Your task to perform on an android device: turn on improve location accuracy Image 0: 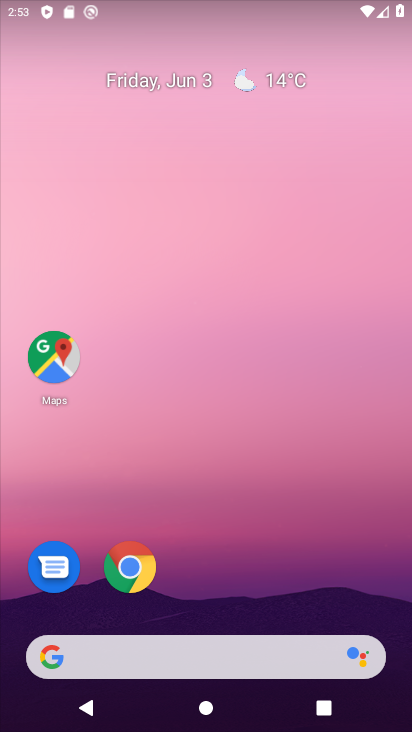
Step 0: click (207, 24)
Your task to perform on an android device: turn on improve location accuracy Image 1: 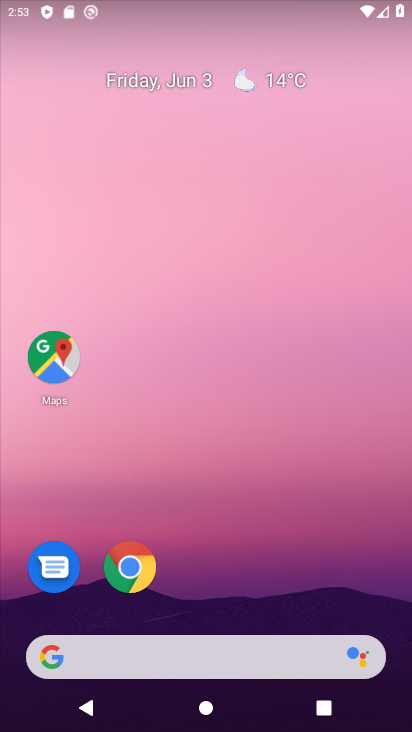
Step 1: drag from (229, 473) to (258, 44)
Your task to perform on an android device: turn on improve location accuracy Image 2: 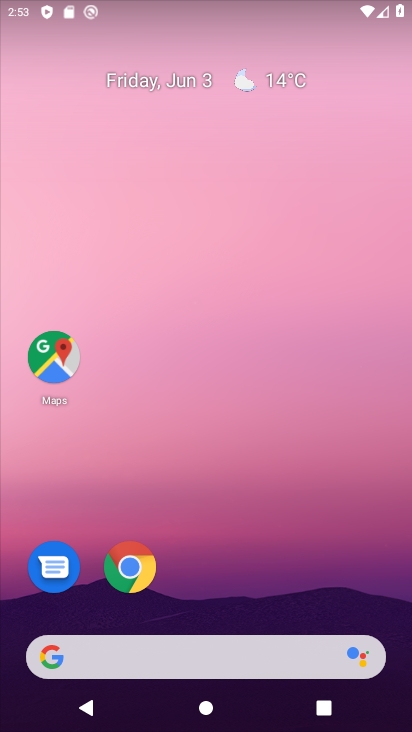
Step 2: drag from (230, 588) to (259, 25)
Your task to perform on an android device: turn on improve location accuracy Image 3: 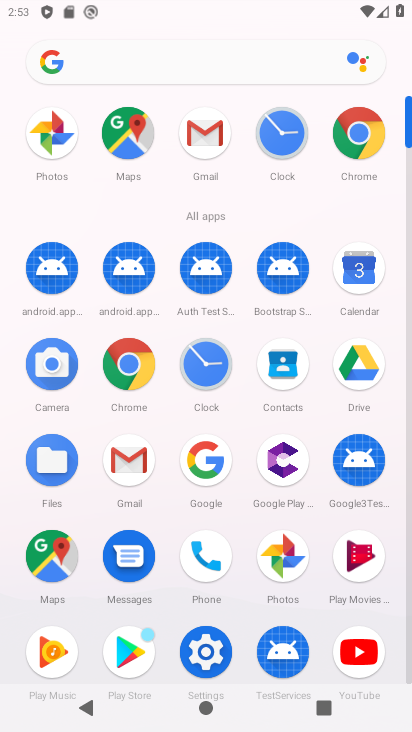
Step 3: click (206, 644)
Your task to perform on an android device: turn on improve location accuracy Image 4: 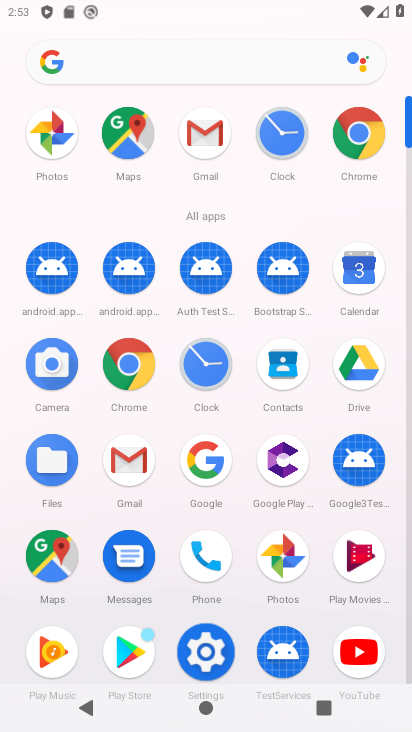
Step 4: click (203, 656)
Your task to perform on an android device: turn on improve location accuracy Image 5: 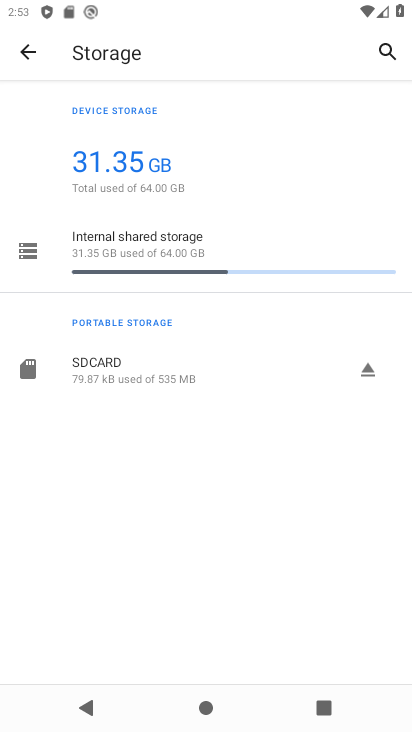
Step 5: click (33, 48)
Your task to perform on an android device: turn on improve location accuracy Image 6: 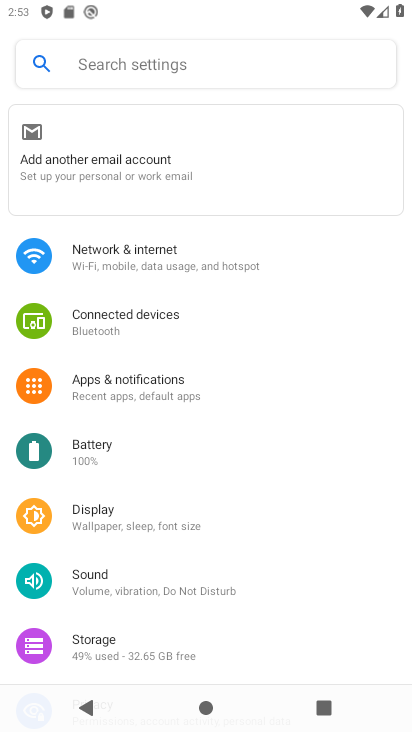
Step 6: drag from (142, 643) to (164, 293)
Your task to perform on an android device: turn on improve location accuracy Image 7: 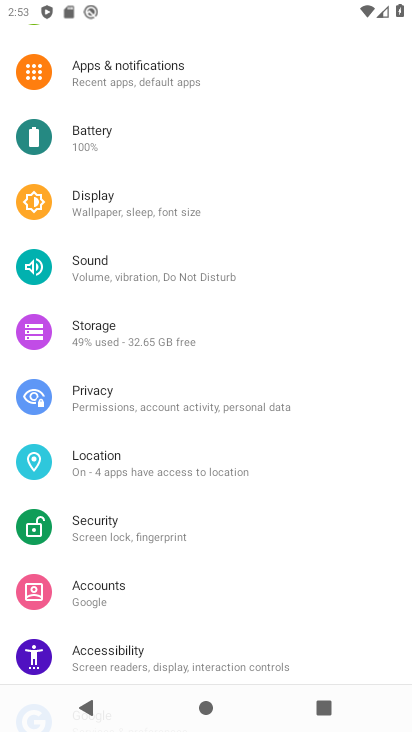
Step 7: click (145, 475)
Your task to perform on an android device: turn on improve location accuracy Image 8: 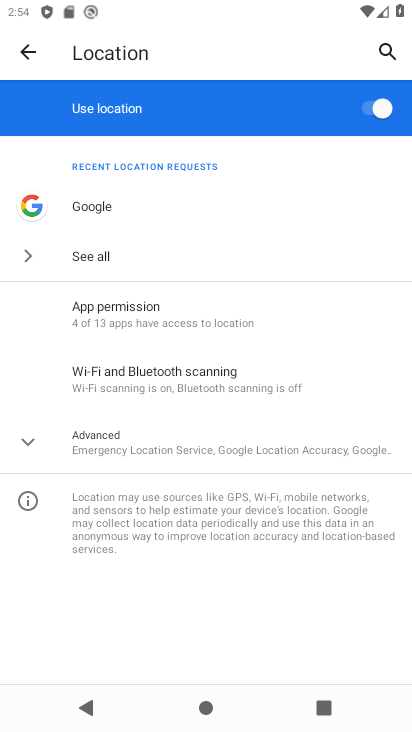
Step 8: click (119, 436)
Your task to perform on an android device: turn on improve location accuracy Image 9: 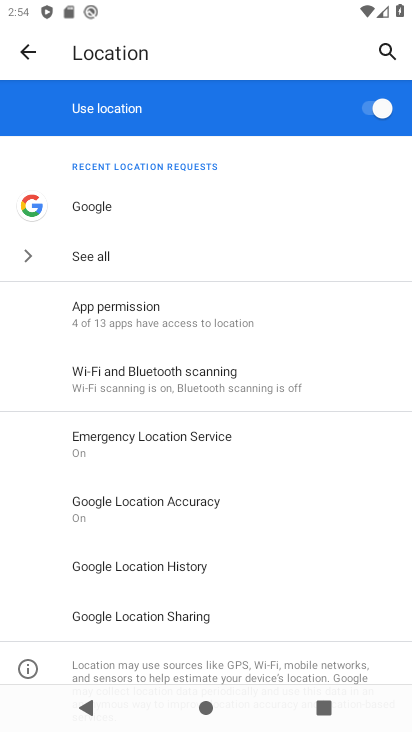
Step 9: click (209, 505)
Your task to perform on an android device: turn on improve location accuracy Image 10: 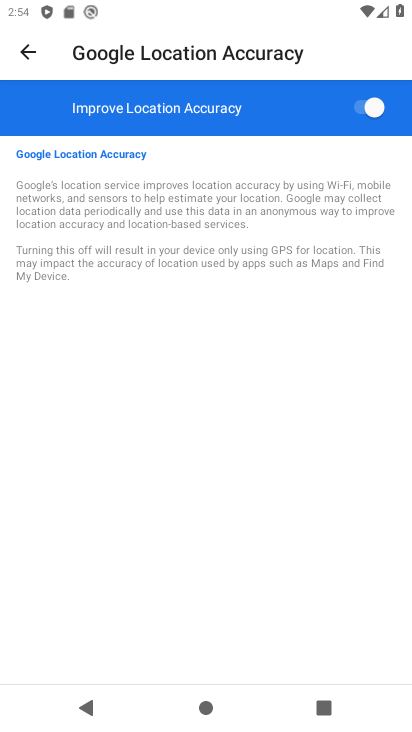
Step 10: task complete